Your task to perform on an android device: Toggle the flashlight Image 0: 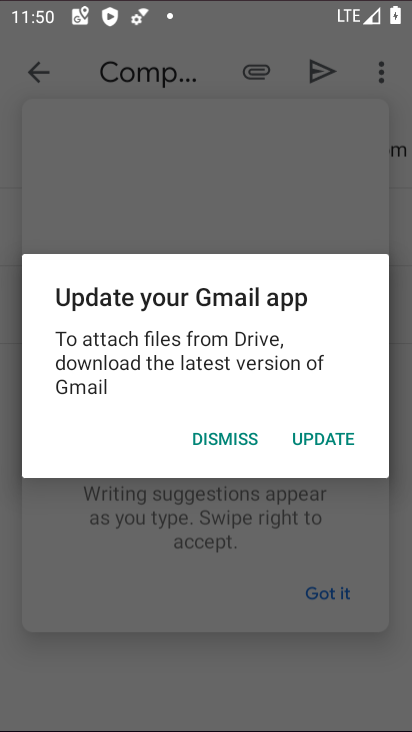
Step 0: drag from (370, 570) to (264, 23)
Your task to perform on an android device: Toggle the flashlight Image 1: 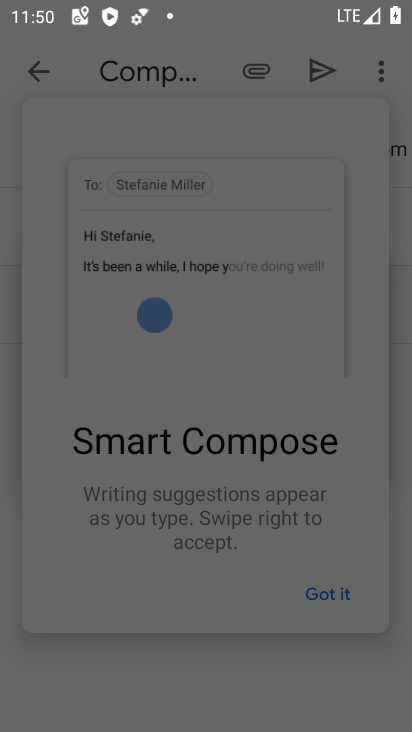
Step 1: press back button
Your task to perform on an android device: Toggle the flashlight Image 2: 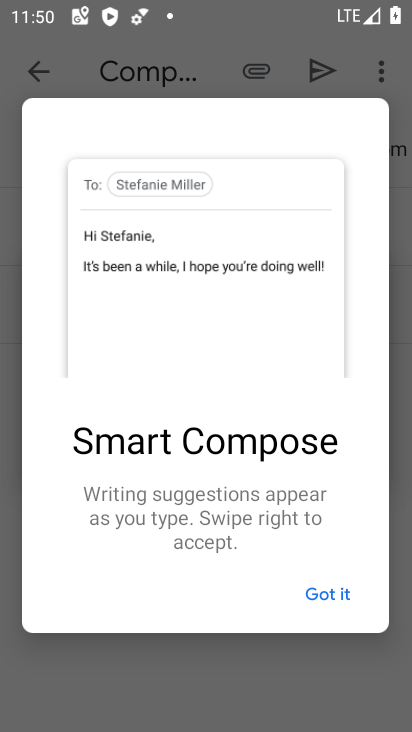
Step 2: press back button
Your task to perform on an android device: Toggle the flashlight Image 3: 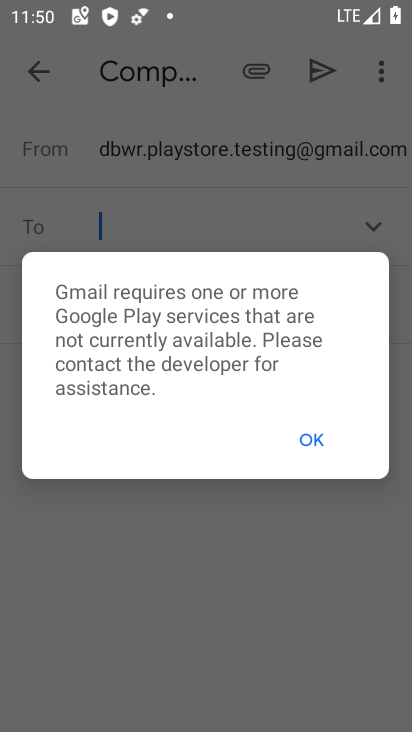
Step 3: press home button
Your task to perform on an android device: Toggle the flashlight Image 4: 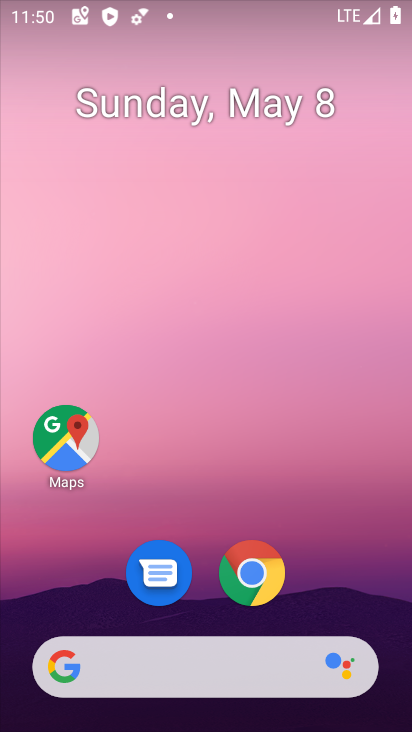
Step 4: drag from (321, 585) to (168, 5)
Your task to perform on an android device: Toggle the flashlight Image 5: 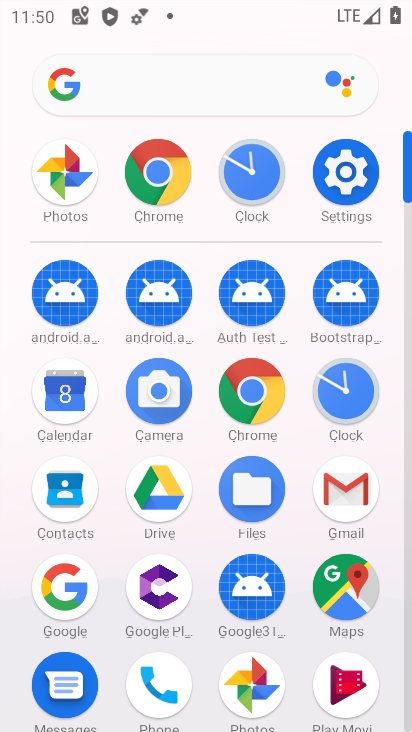
Step 5: drag from (10, 619) to (1, 376)
Your task to perform on an android device: Toggle the flashlight Image 6: 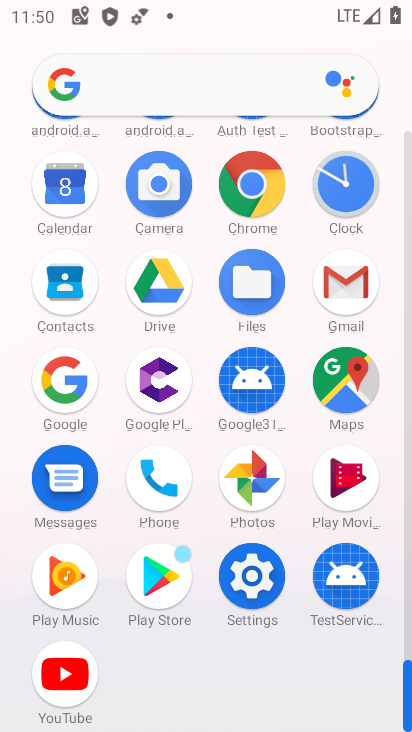
Step 6: click (252, 576)
Your task to perform on an android device: Toggle the flashlight Image 7: 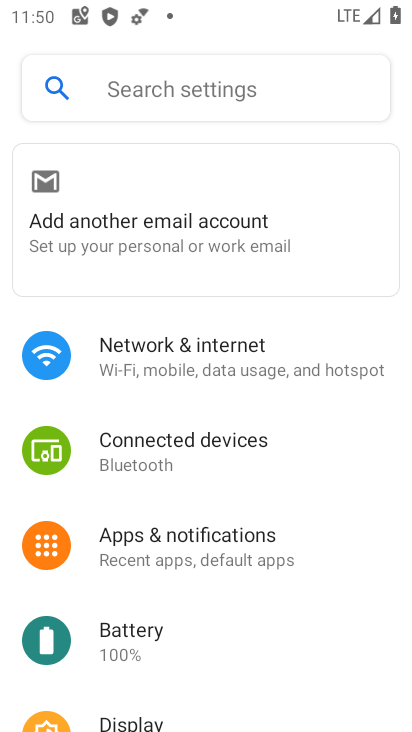
Step 7: drag from (272, 594) to (307, 192)
Your task to perform on an android device: Toggle the flashlight Image 8: 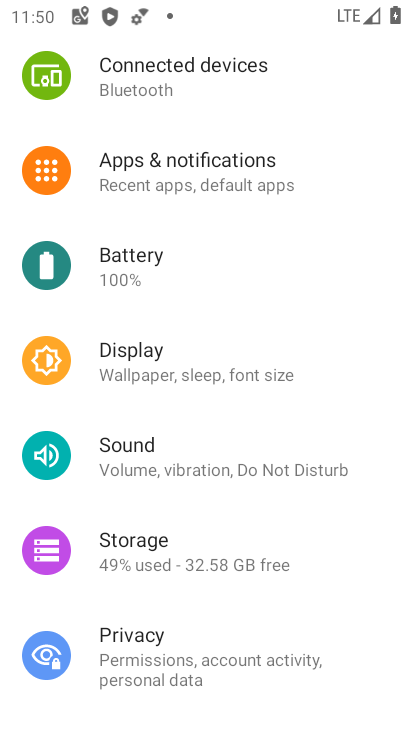
Step 8: drag from (259, 153) to (271, 456)
Your task to perform on an android device: Toggle the flashlight Image 9: 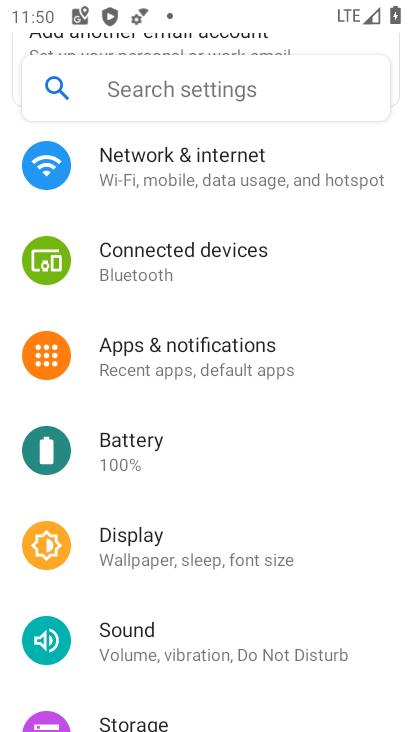
Step 9: drag from (216, 176) to (256, 413)
Your task to perform on an android device: Toggle the flashlight Image 10: 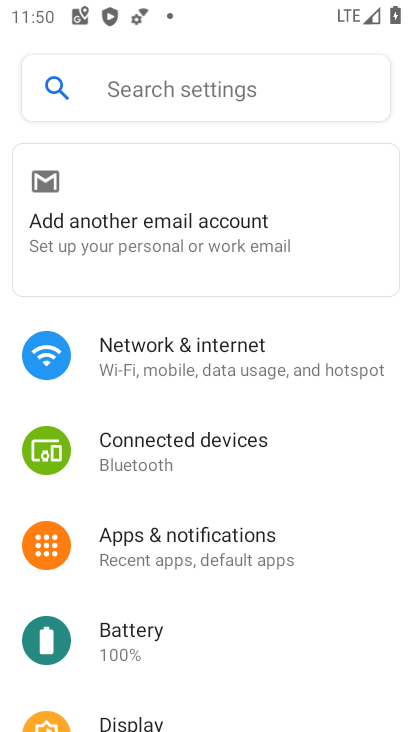
Step 10: click (237, 361)
Your task to perform on an android device: Toggle the flashlight Image 11: 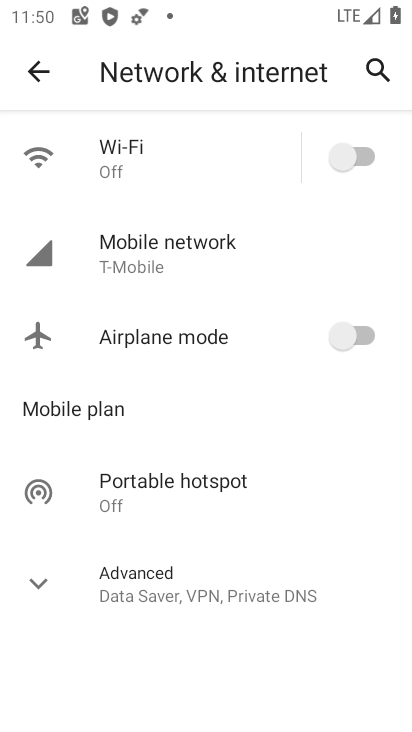
Step 11: click (63, 580)
Your task to perform on an android device: Toggle the flashlight Image 12: 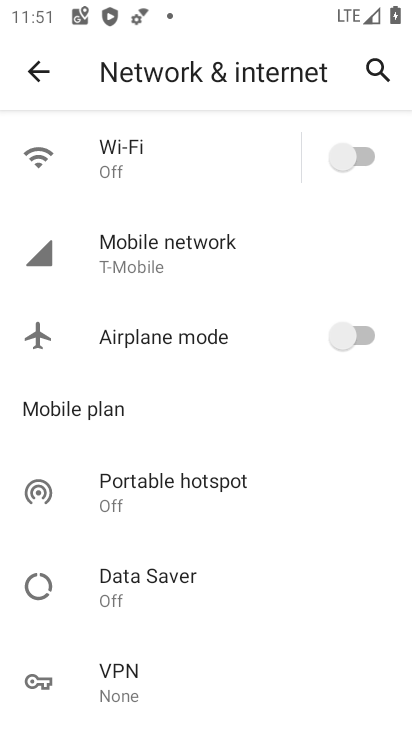
Step 12: task complete